Your task to perform on an android device: make emails show in primary in the gmail app Image 0: 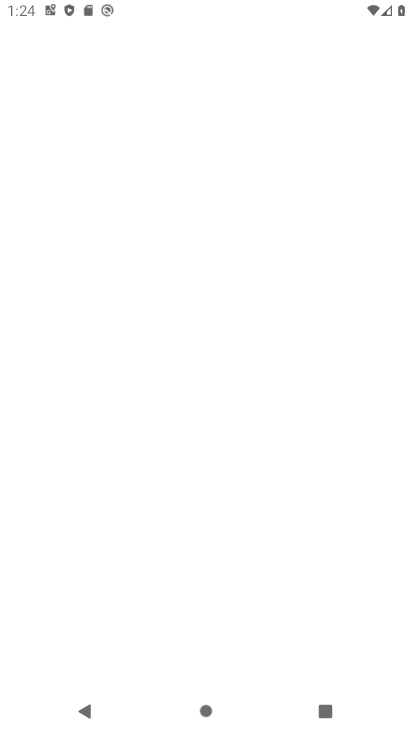
Step 0: drag from (388, 612) to (366, 266)
Your task to perform on an android device: make emails show in primary in the gmail app Image 1: 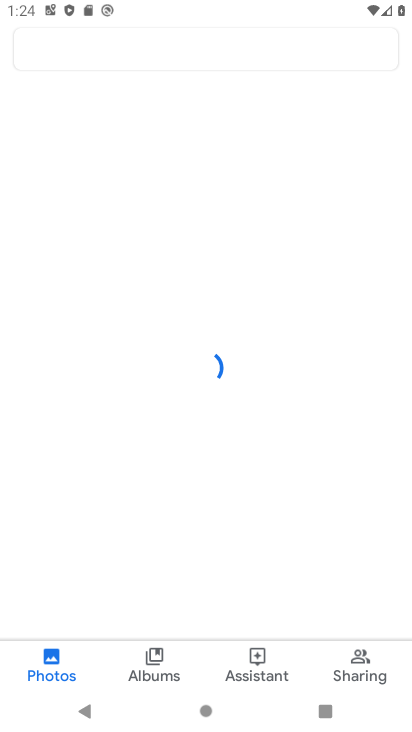
Step 1: press home button
Your task to perform on an android device: make emails show in primary in the gmail app Image 2: 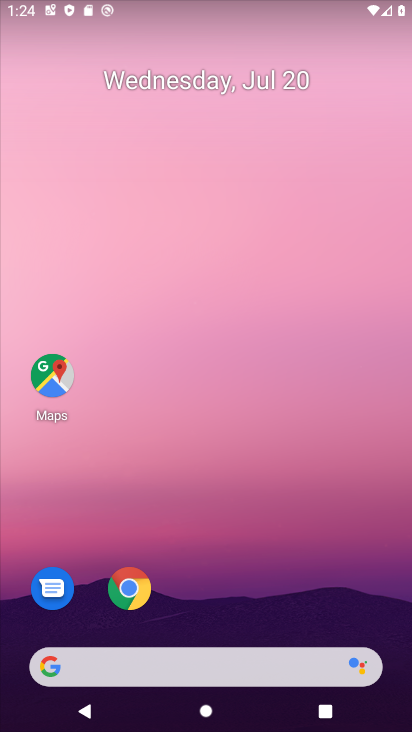
Step 2: drag from (296, 614) to (206, 52)
Your task to perform on an android device: make emails show in primary in the gmail app Image 3: 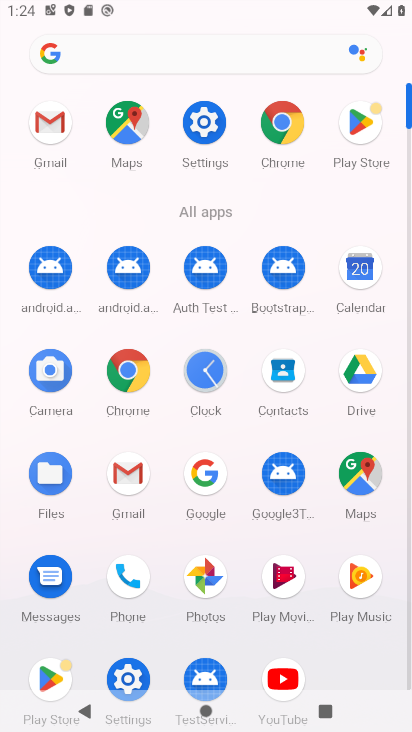
Step 3: click (137, 478)
Your task to perform on an android device: make emails show in primary in the gmail app Image 4: 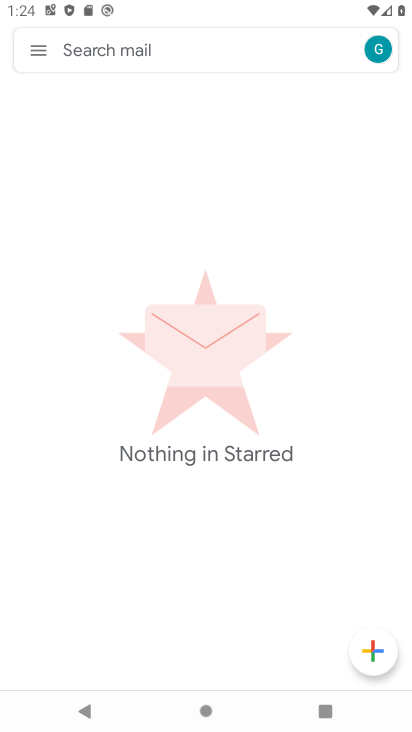
Step 4: task complete